Your task to perform on an android device: turn on the 24-hour format for clock Image 0: 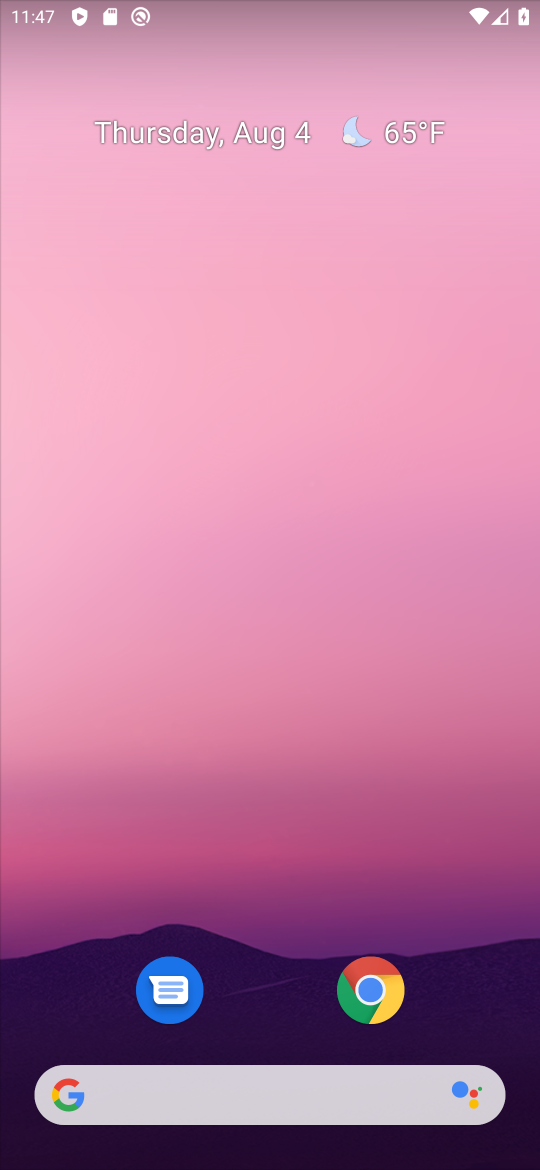
Step 0: drag from (476, 1000) to (321, 23)
Your task to perform on an android device: turn on the 24-hour format for clock Image 1: 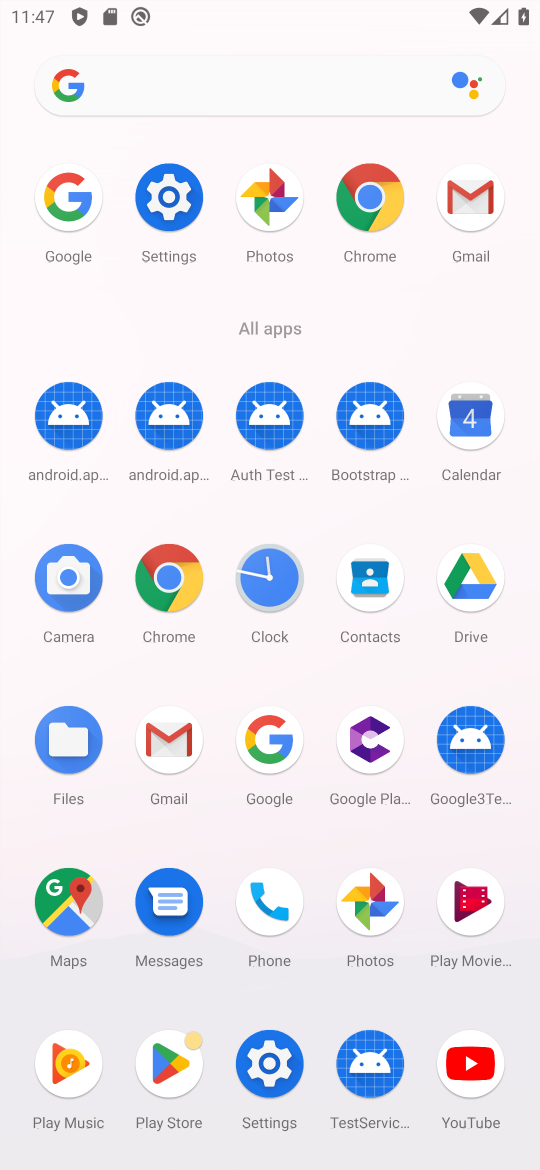
Step 1: drag from (441, 834) to (343, 408)
Your task to perform on an android device: turn on the 24-hour format for clock Image 2: 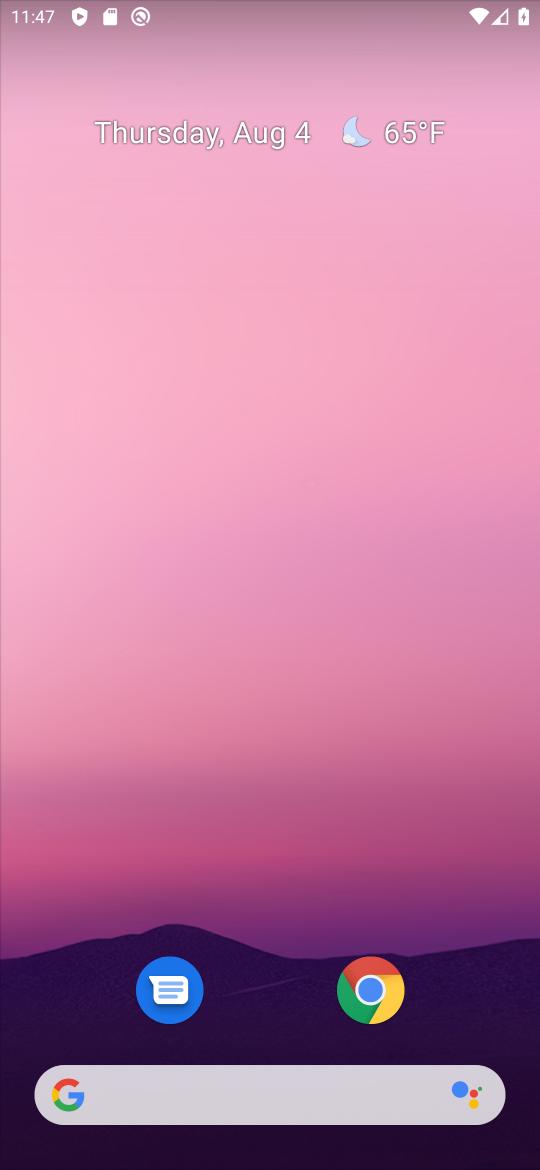
Step 2: drag from (481, 1020) to (374, 285)
Your task to perform on an android device: turn on the 24-hour format for clock Image 3: 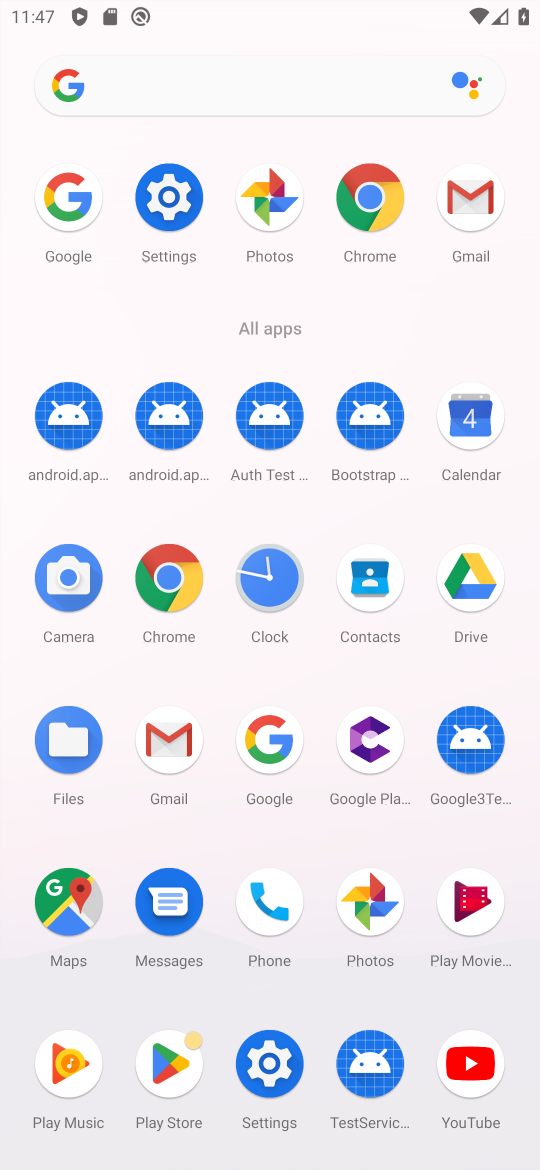
Step 3: click (252, 583)
Your task to perform on an android device: turn on the 24-hour format for clock Image 4: 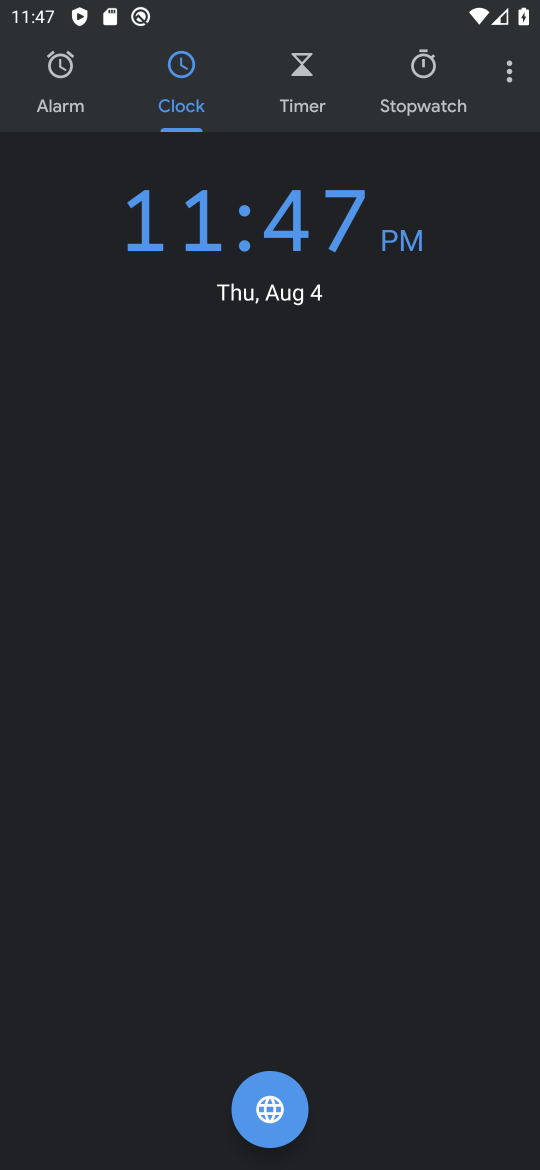
Step 4: click (511, 84)
Your task to perform on an android device: turn on the 24-hour format for clock Image 5: 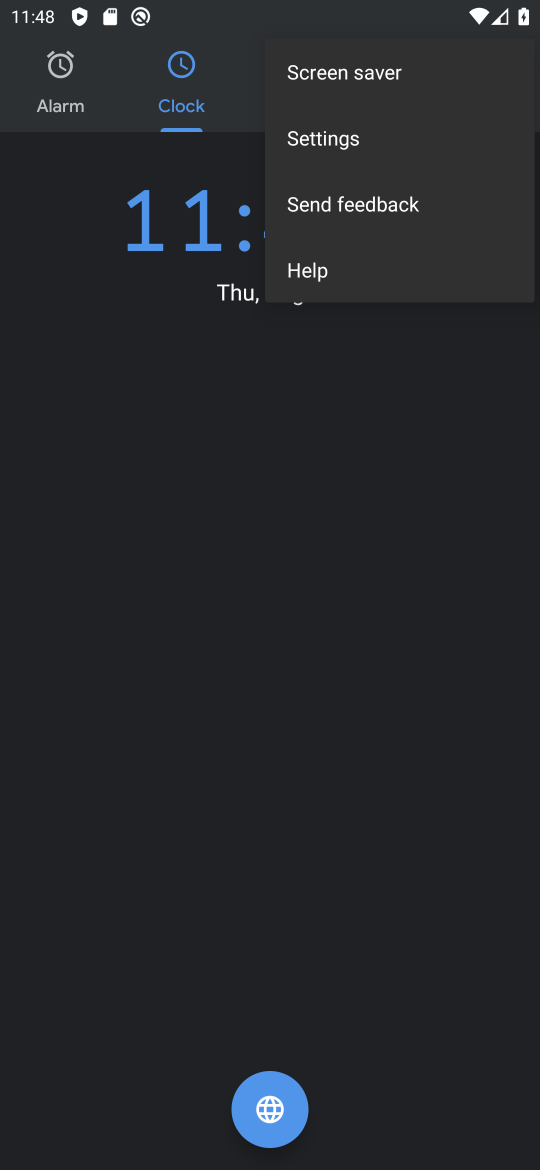
Step 5: click (405, 148)
Your task to perform on an android device: turn on the 24-hour format for clock Image 6: 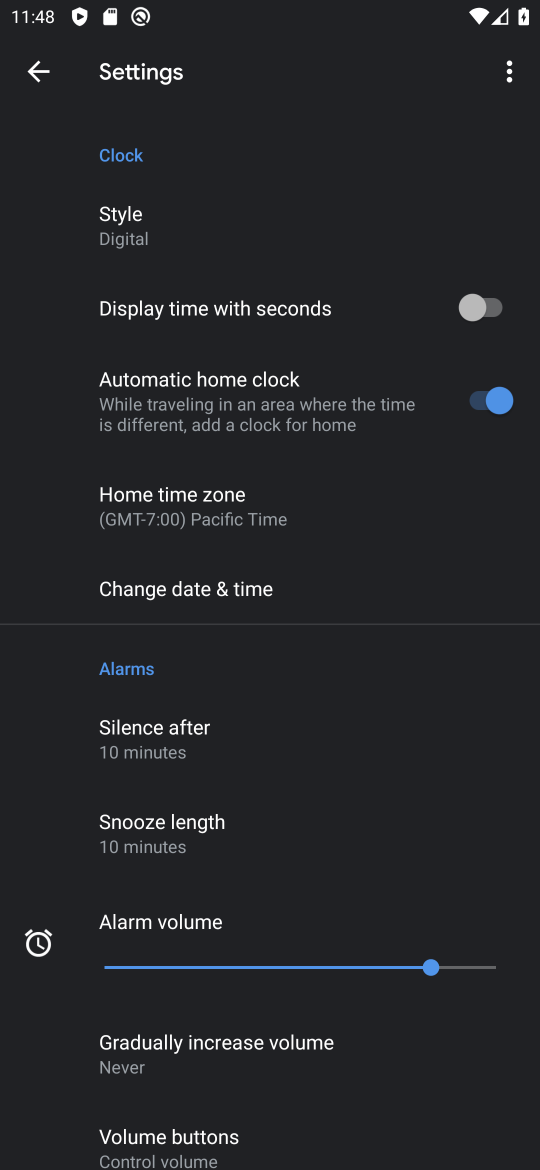
Step 6: click (291, 610)
Your task to perform on an android device: turn on the 24-hour format for clock Image 7: 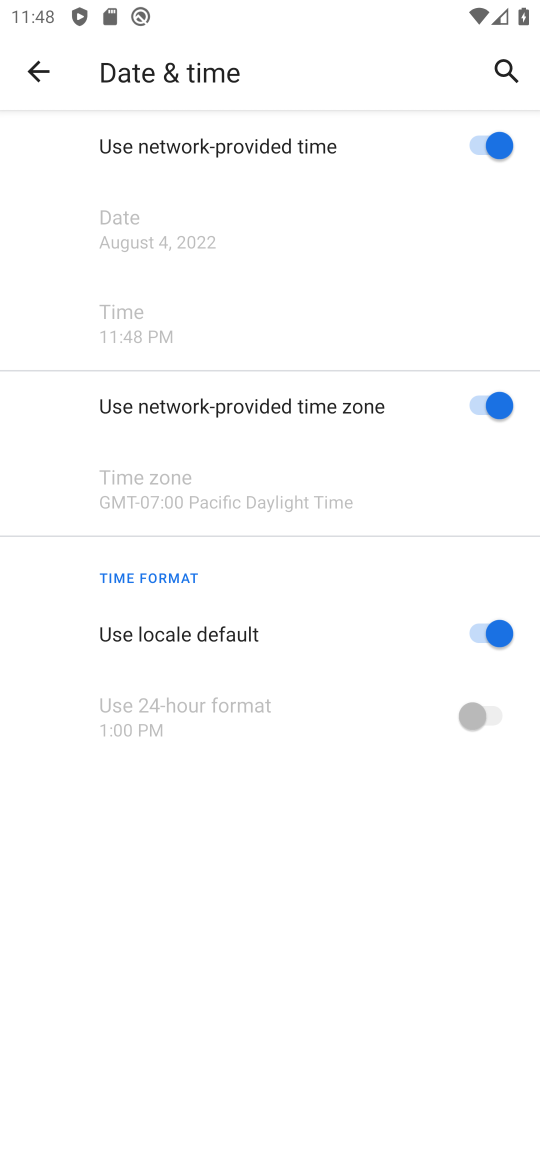
Step 7: click (488, 641)
Your task to perform on an android device: turn on the 24-hour format for clock Image 8: 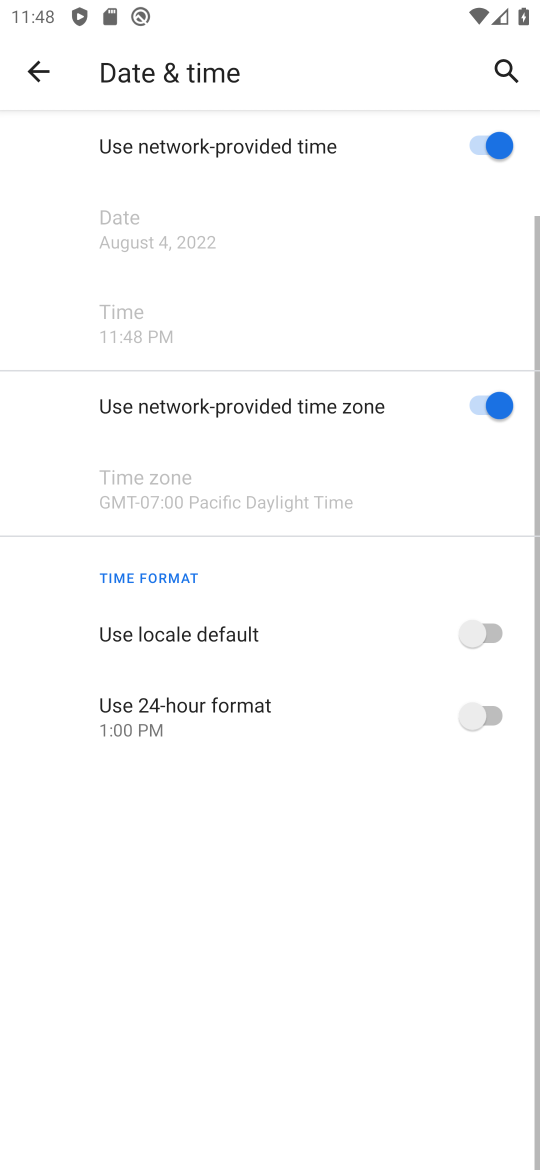
Step 8: click (491, 719)
Your task to perform on an android device: turn on the 24-hour format for clock Image 9: 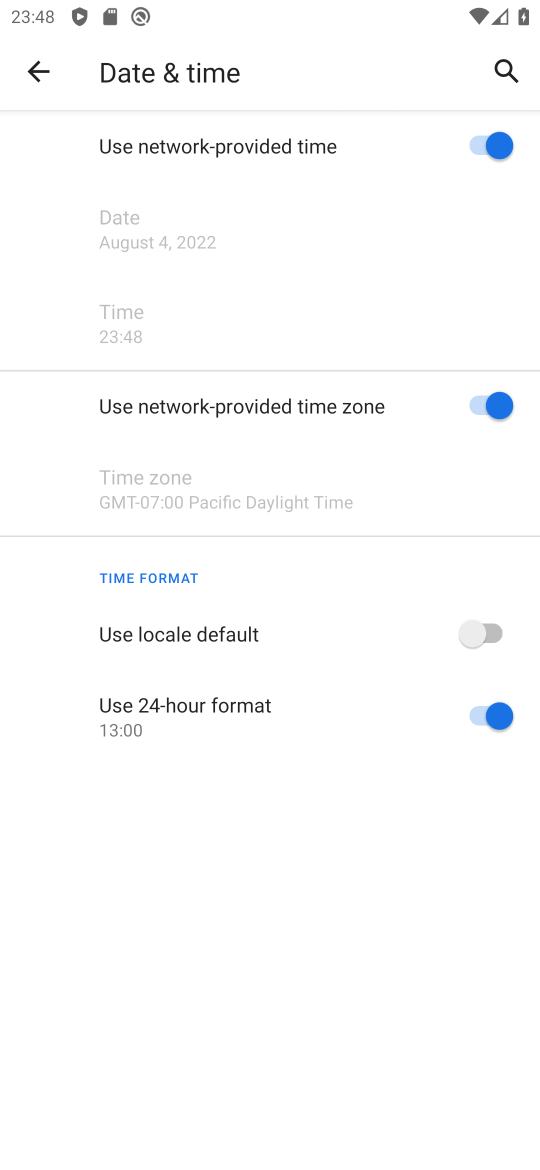
Step 9: task complete